Your task to perform on an android device: Add apple airpods to the cart on bestbuy Image 0: 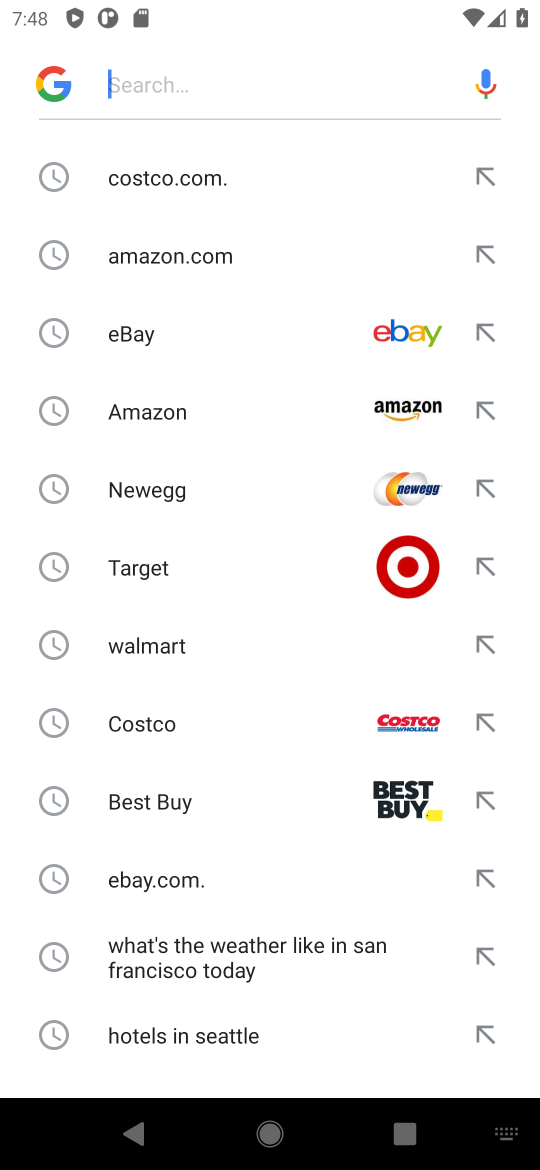
Step 0: click (147, 794)
Your task to perform on an android device: Add apple airpods to the cart on bestbuy Image 1: 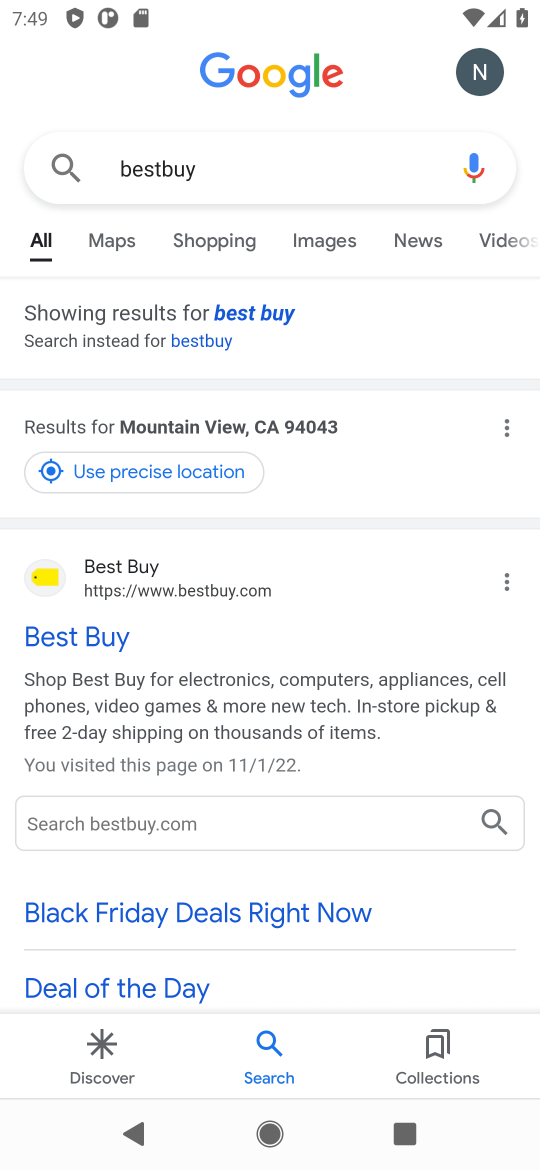
Step 1: click (114, 677)
Your task to perform on an android device: Add apple airpods to the cart on bestbuy Image 2: 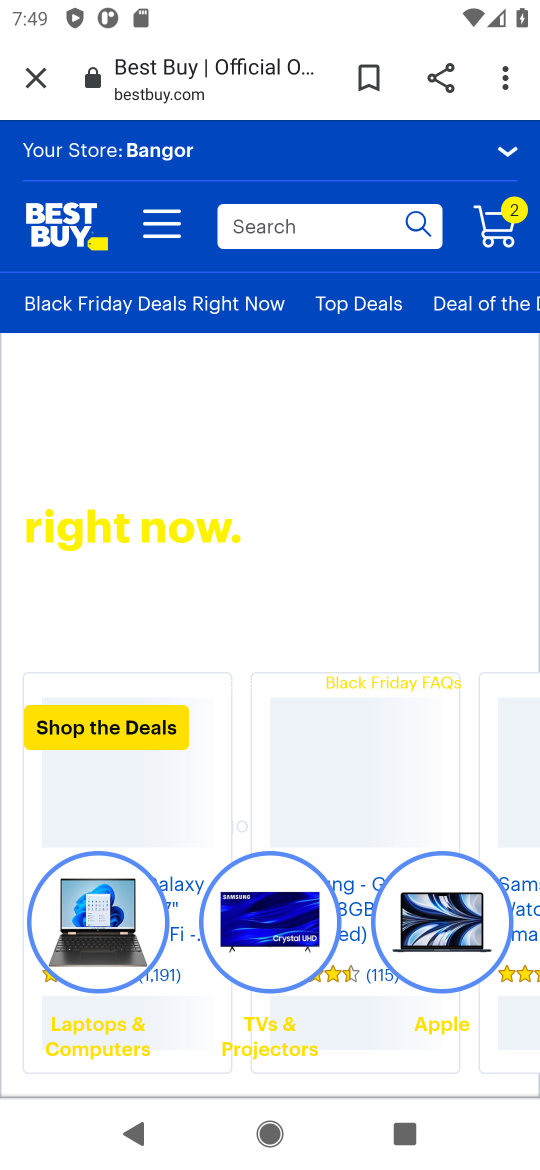
Step 2: click (246, 233)
Your task to perform on an android device: Add apple airpods to the cart on bestbuy Image 3: 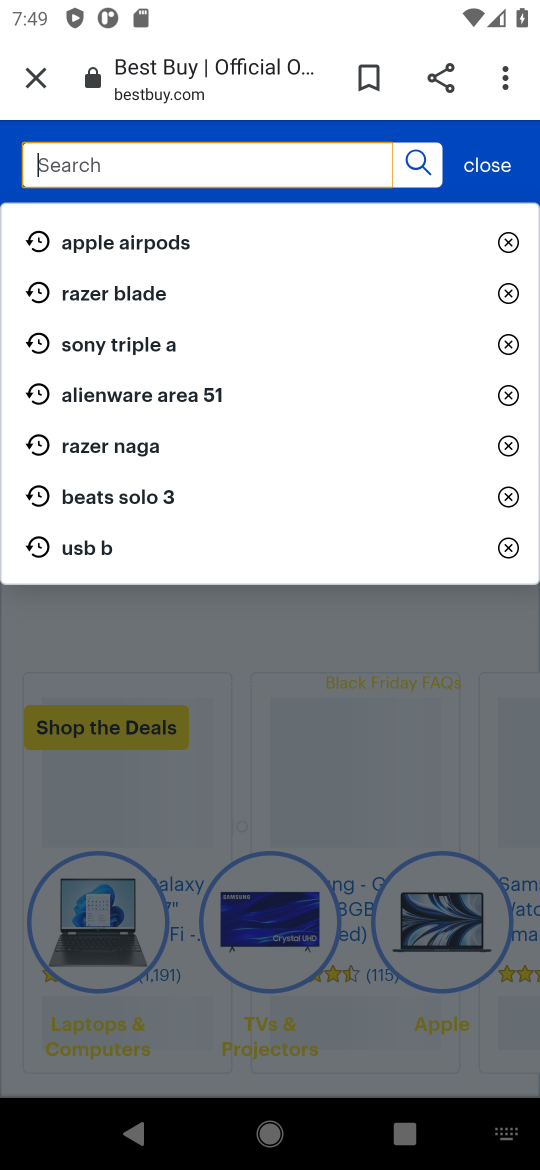
Step 3: type "apple airpods"
Your task to perform on an android device: Add apple airpods to the cart on bestbuy Image 4: 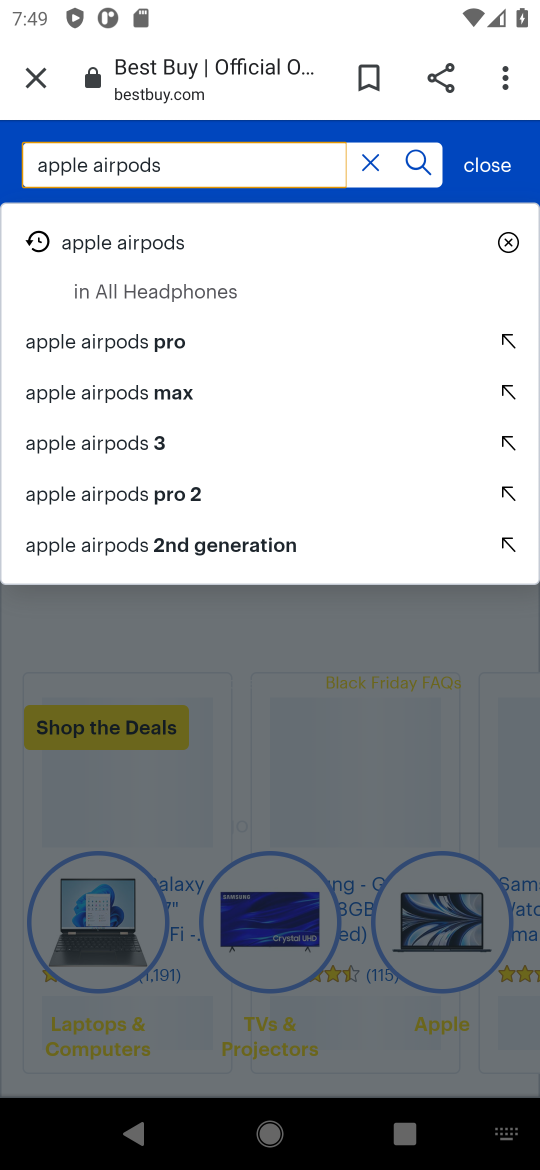
Step 4: click (122, 256)
Your task to perform on an android device: Add apple airpods to the cart on bestbuy Image 5: 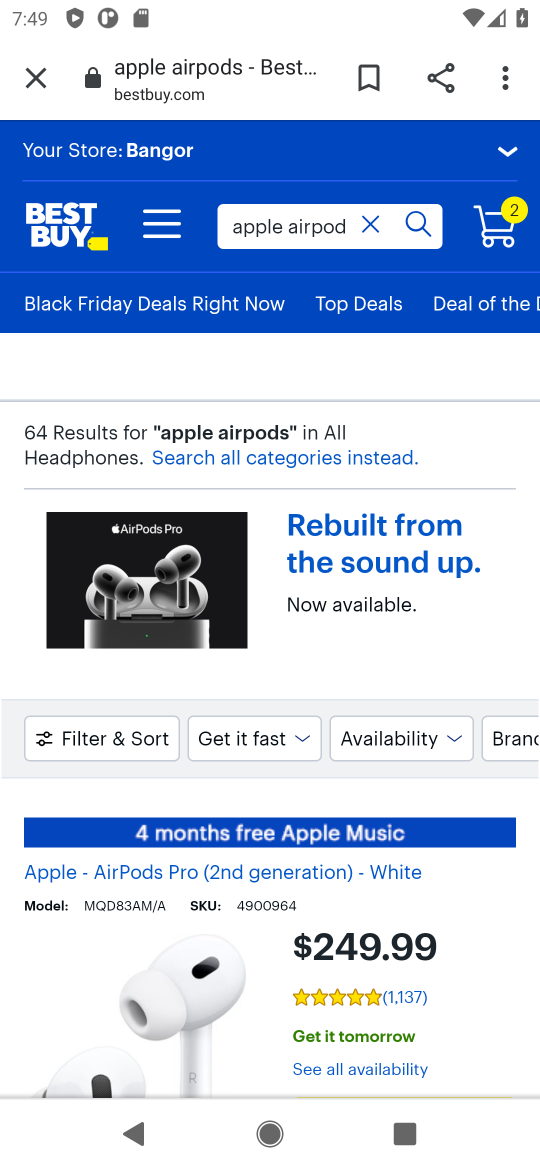
Step 5: drag from (270, 864) to (223, 589)
Your task to perform on an android device: Add apple airpods to the cart on bestbuy Image 6: 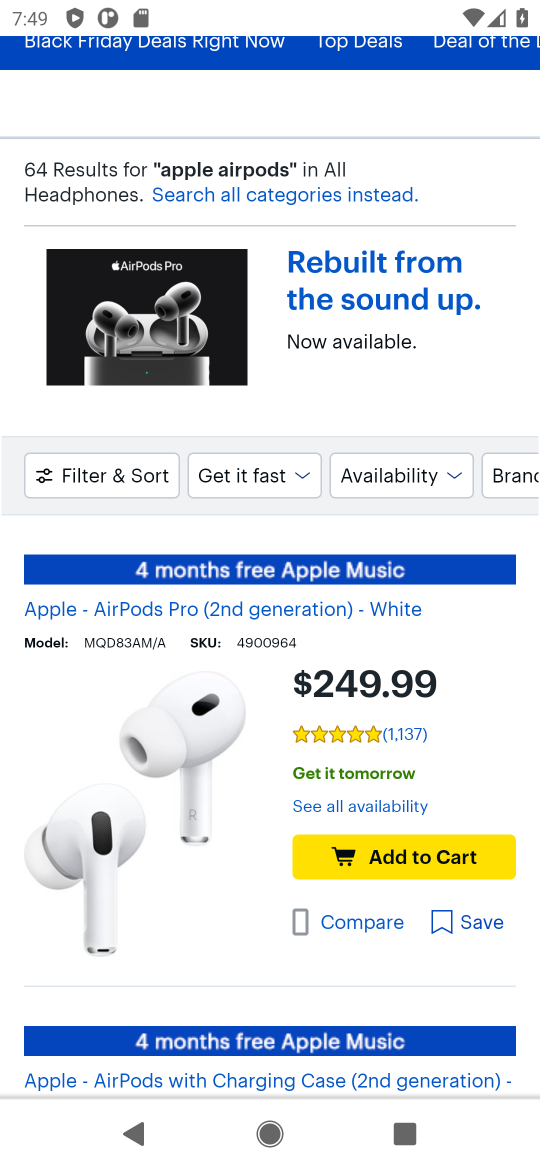
Step 6: click (390, 858)
Your task to perform on an android device: Add apple airpods to the cart on bestbuy Image 7: 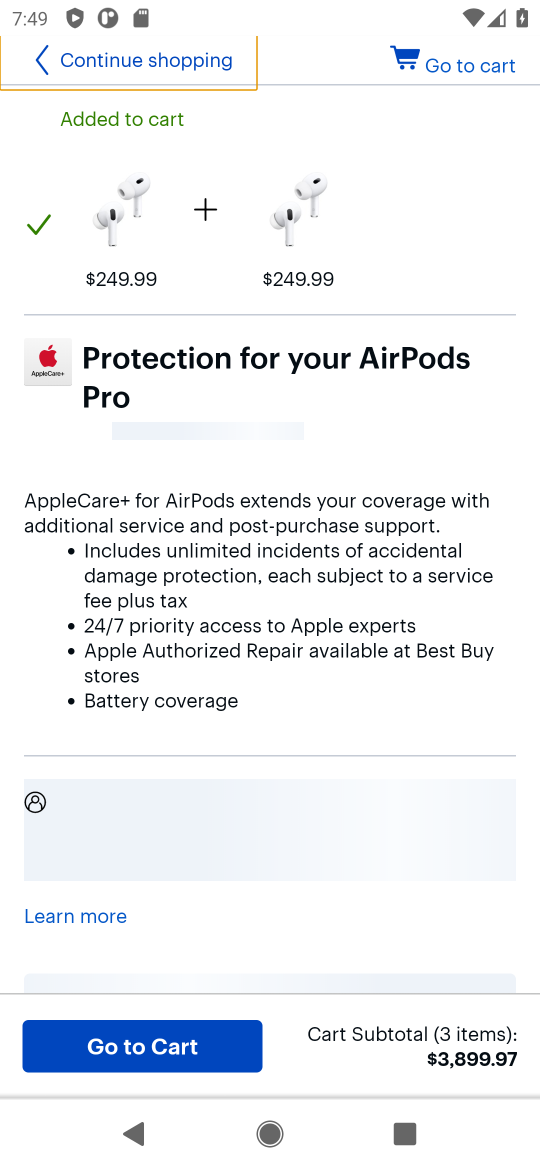
Step 7: task complete